Your task to perform on an android device: Open internet settings Image 0: 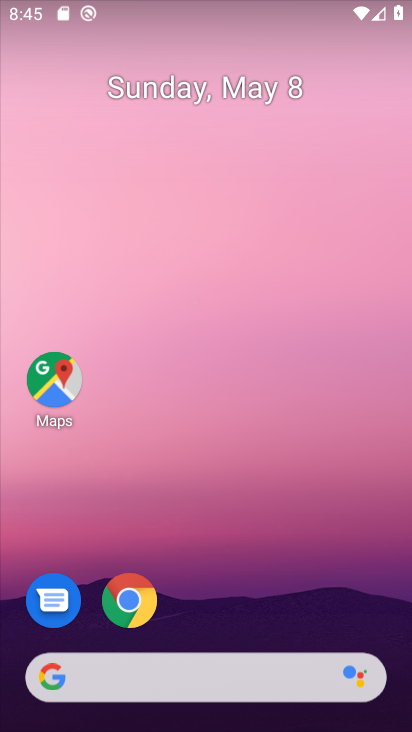
Step 0: drag from (254, 597) to (325, 76)
Your task to perform on an android device: Open internet settings Image 1: 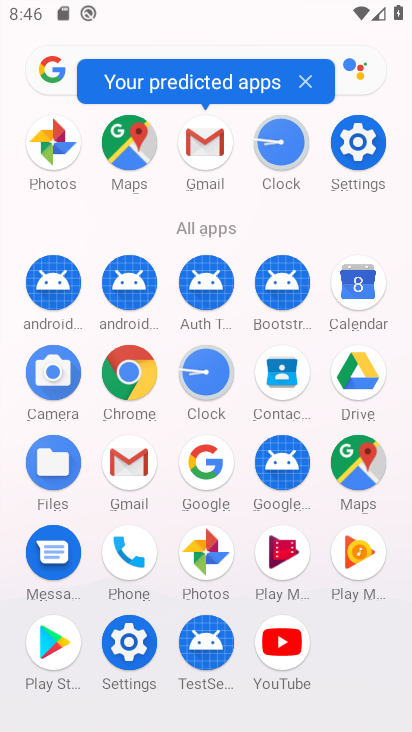
Step 1: click (358, 163)
Your task to perform on an android device: Open internet settings Image 2: 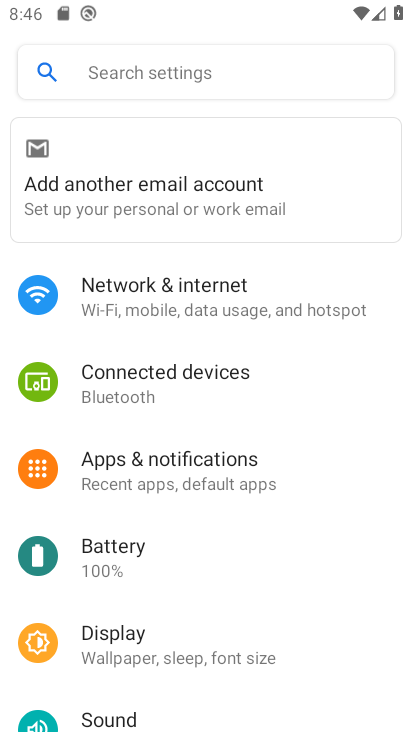
Step 2: click (210, 299)
Your task to perform on an android device: Open internet settings Image 3: 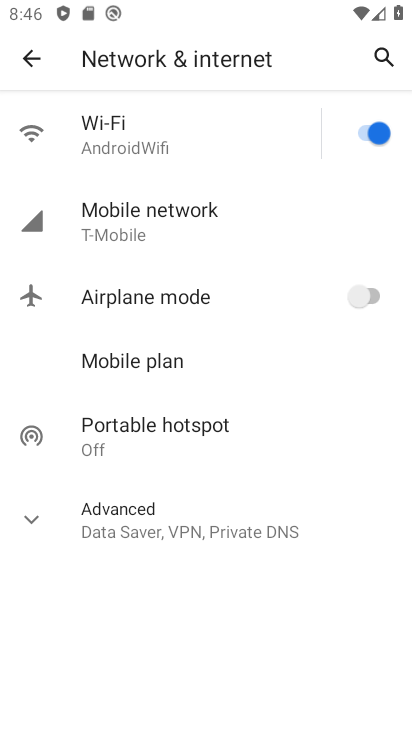
Step 3: task complete